Your task to perform on an android device: toggle pop-ups in chrome Image 0: 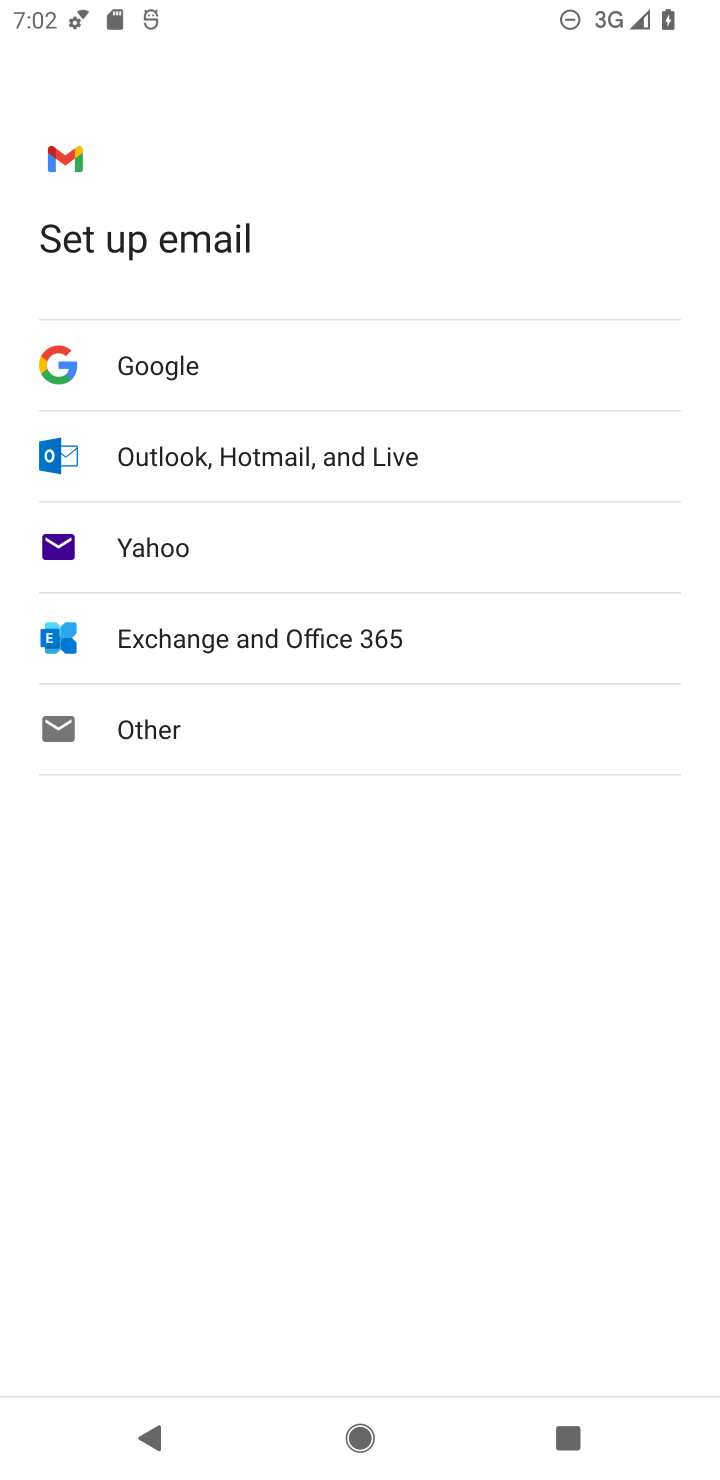
Step 0: press home button
Your task to perform on an android device: toggle pop-ups in chrome Image 1: 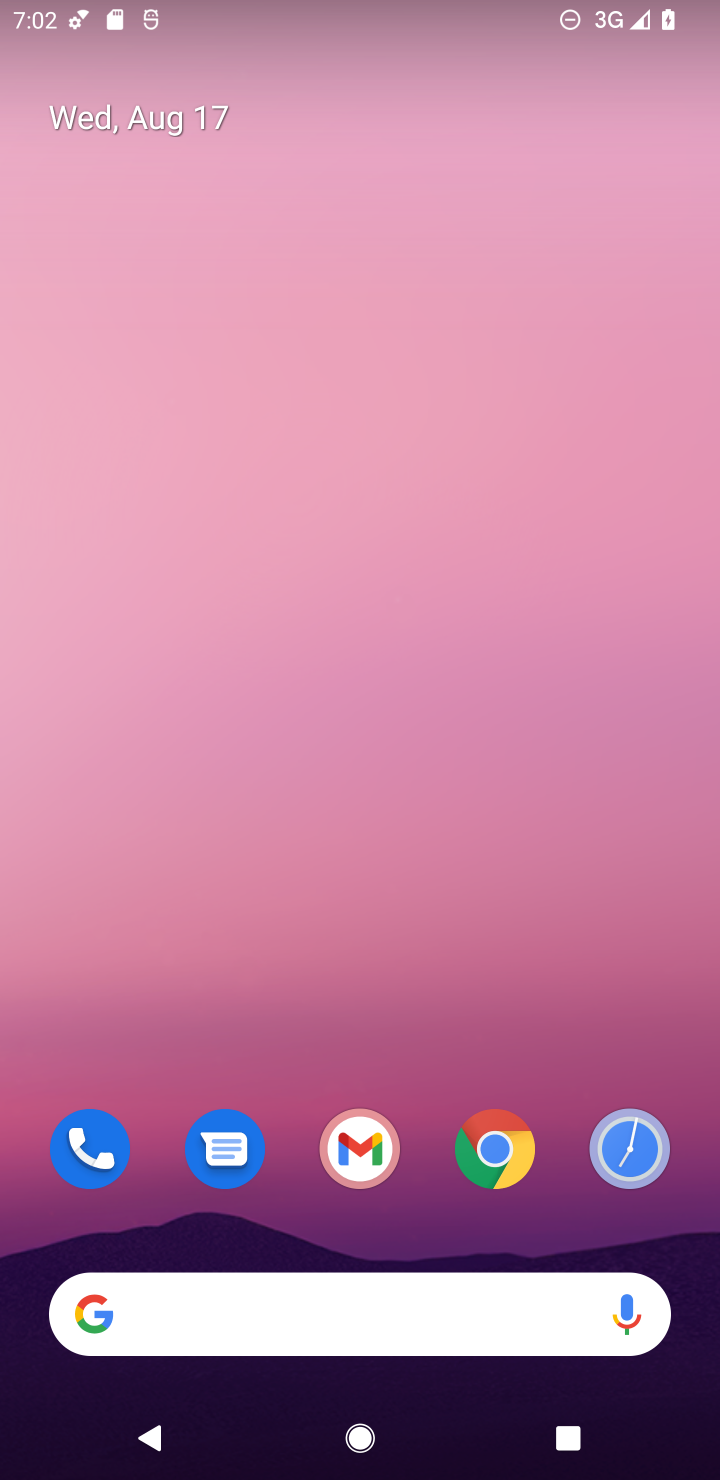
Step 1: click (491, 1138)
Your task to perform on an android device: toggle pop-ups in chrome Image 2: 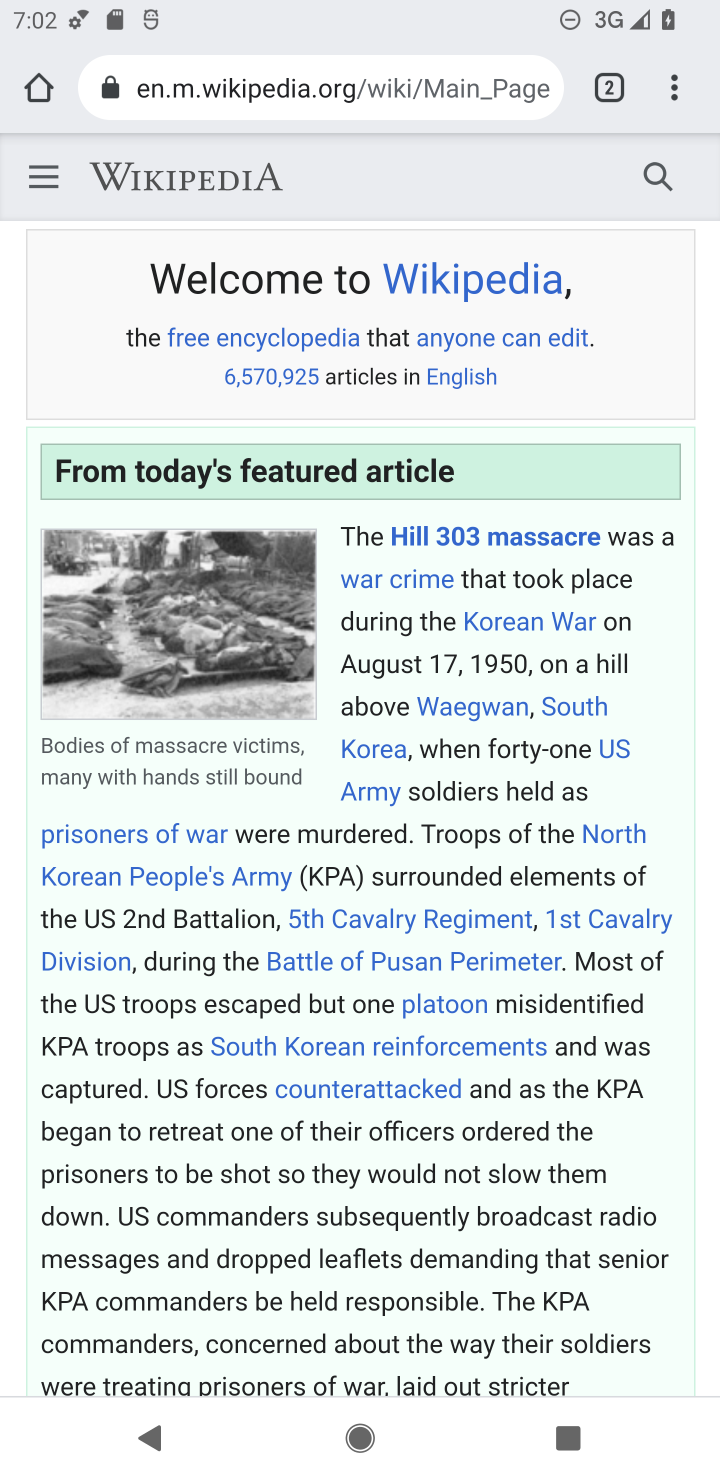
Step 2: click (663, 88)
Your task to perform on an android device: toggle pop-ups in chrome Image 3: 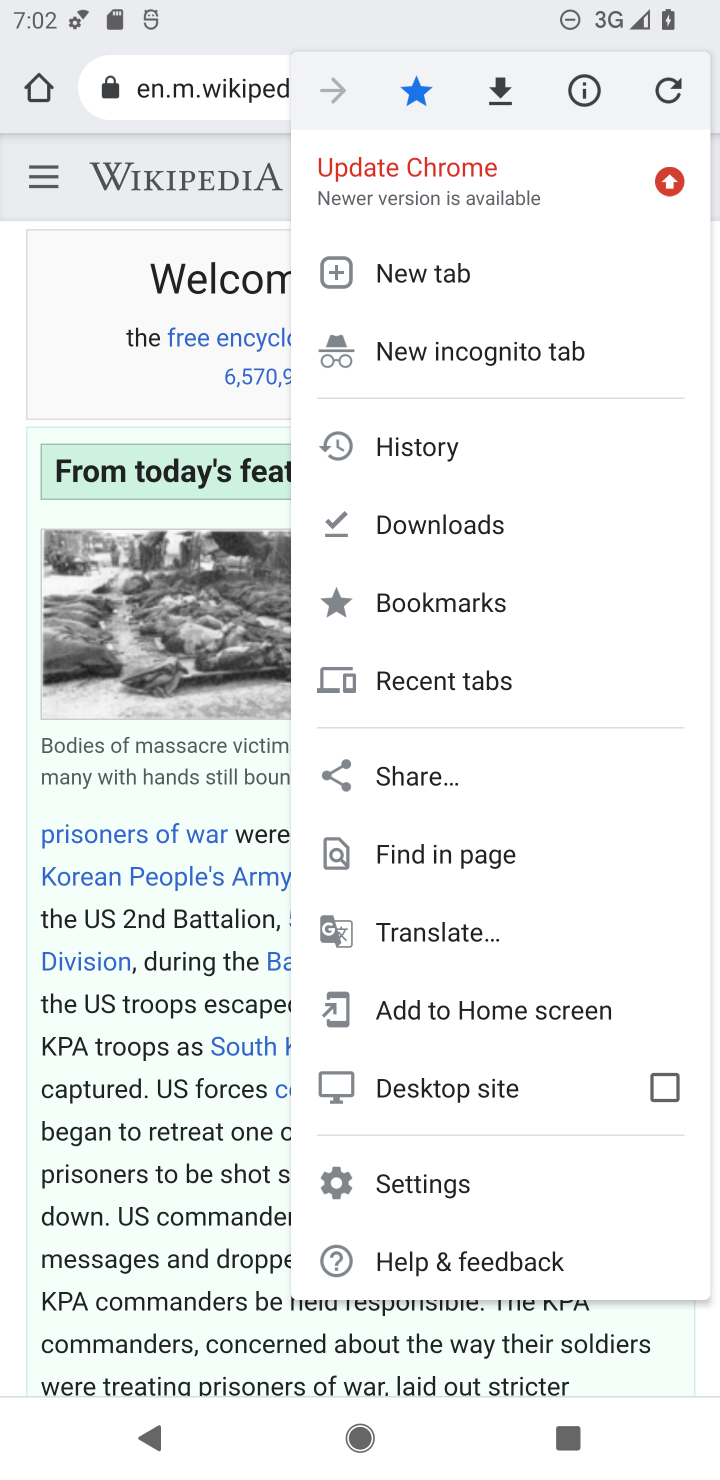
Step 3: click (449, 1181)
Your task to perform on an android device: toggle pop-ups in chrome Image 4: 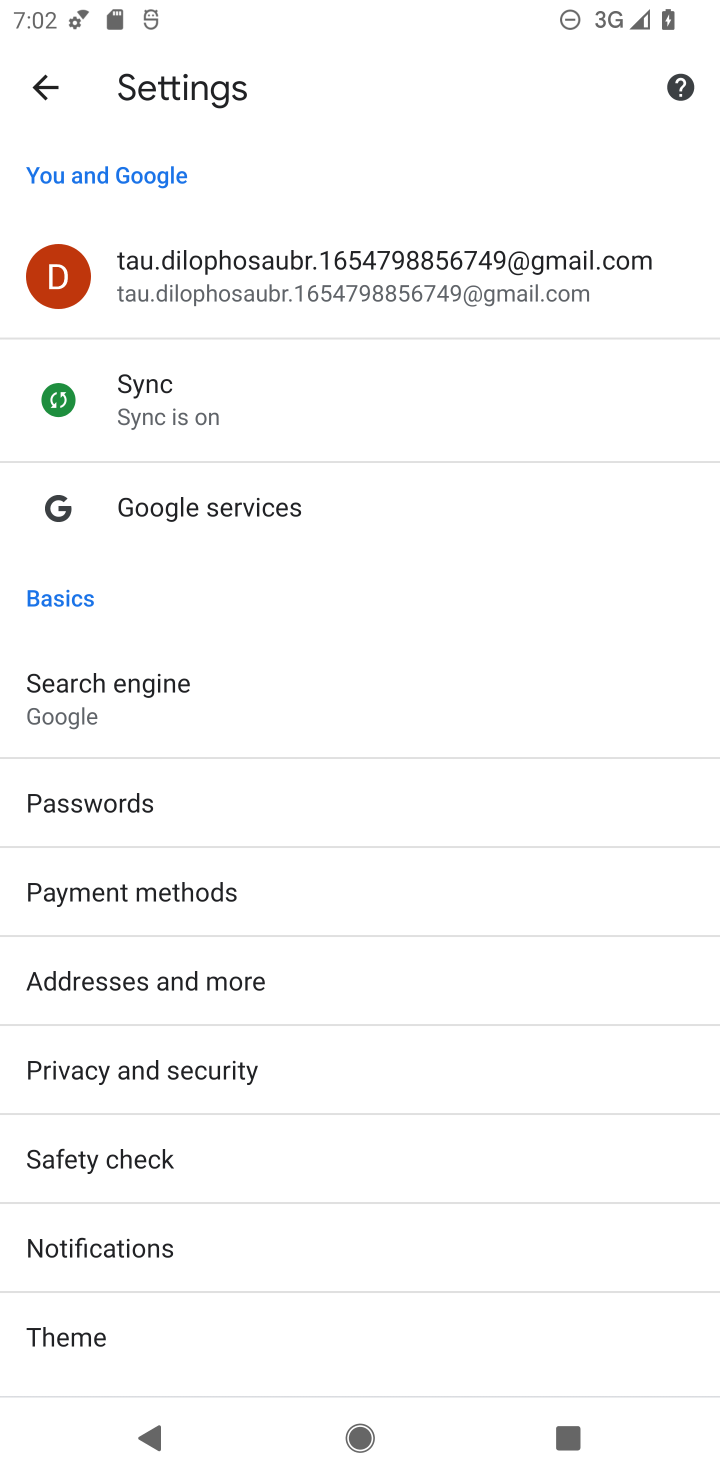
Step 4: drag from (264, 1250) to (205, 509)
Your task to perform on an android device: toggle pop-ups in chrome Image 5: 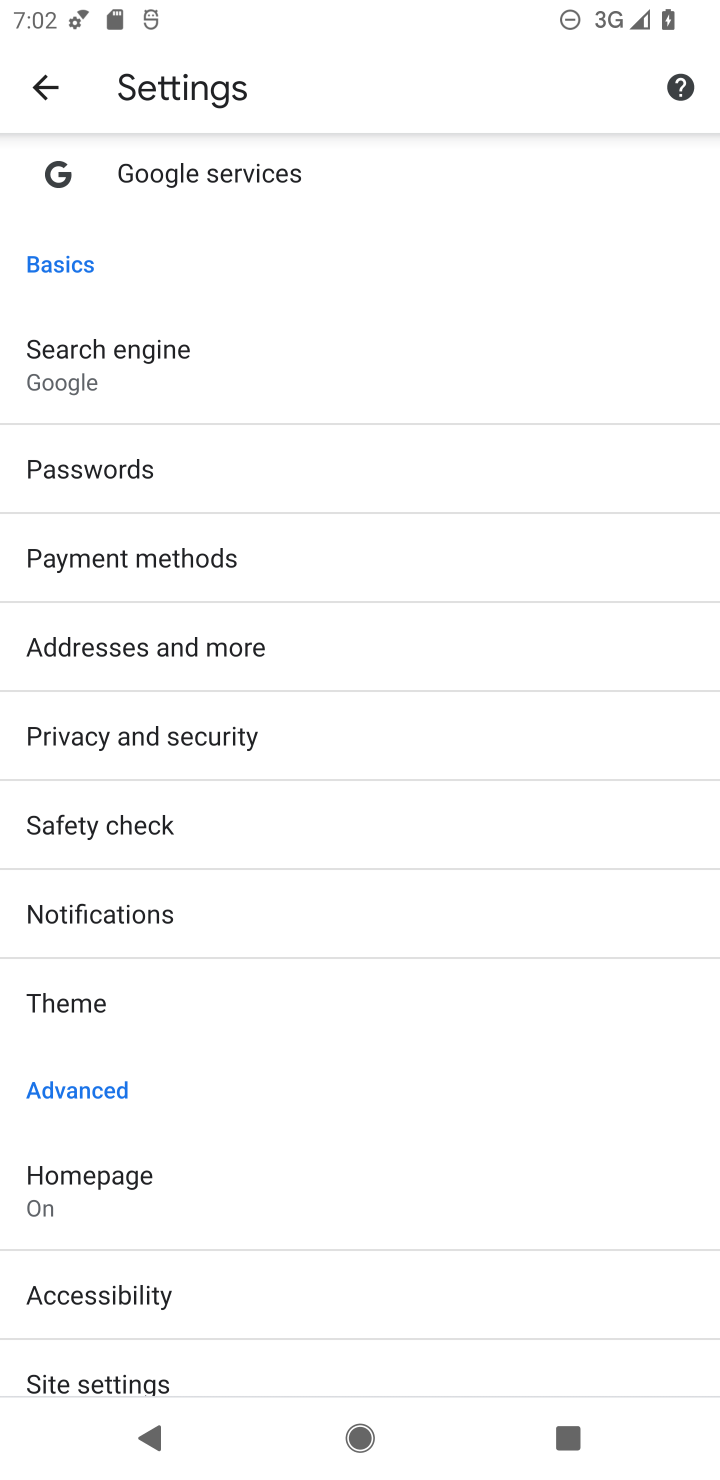
Step 5: click (86, 1362)
Your task to perform on an android device: toggle pop-ups in chrome Image 6: 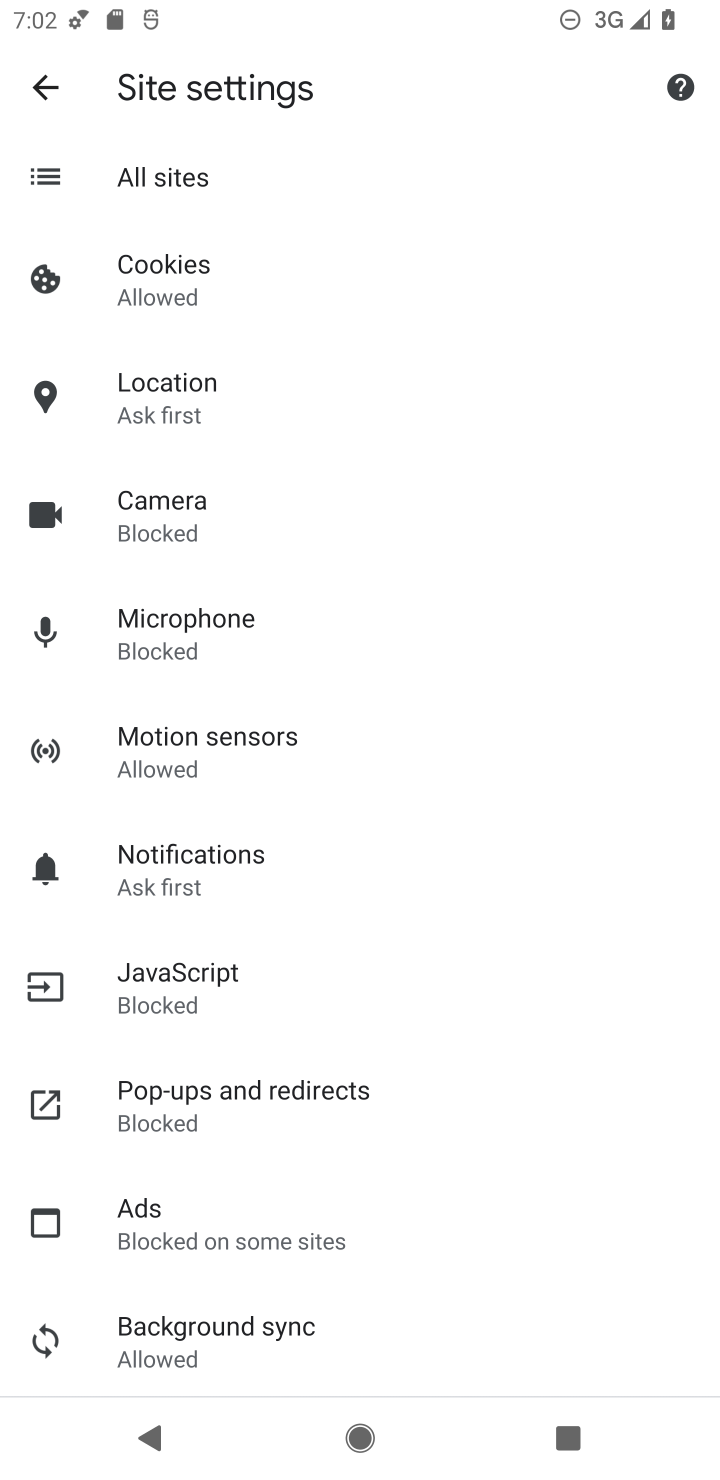
Step 6: click (161, 1084)
Your task to perform on an android device: toggle pop-ups in chrome Image 7: 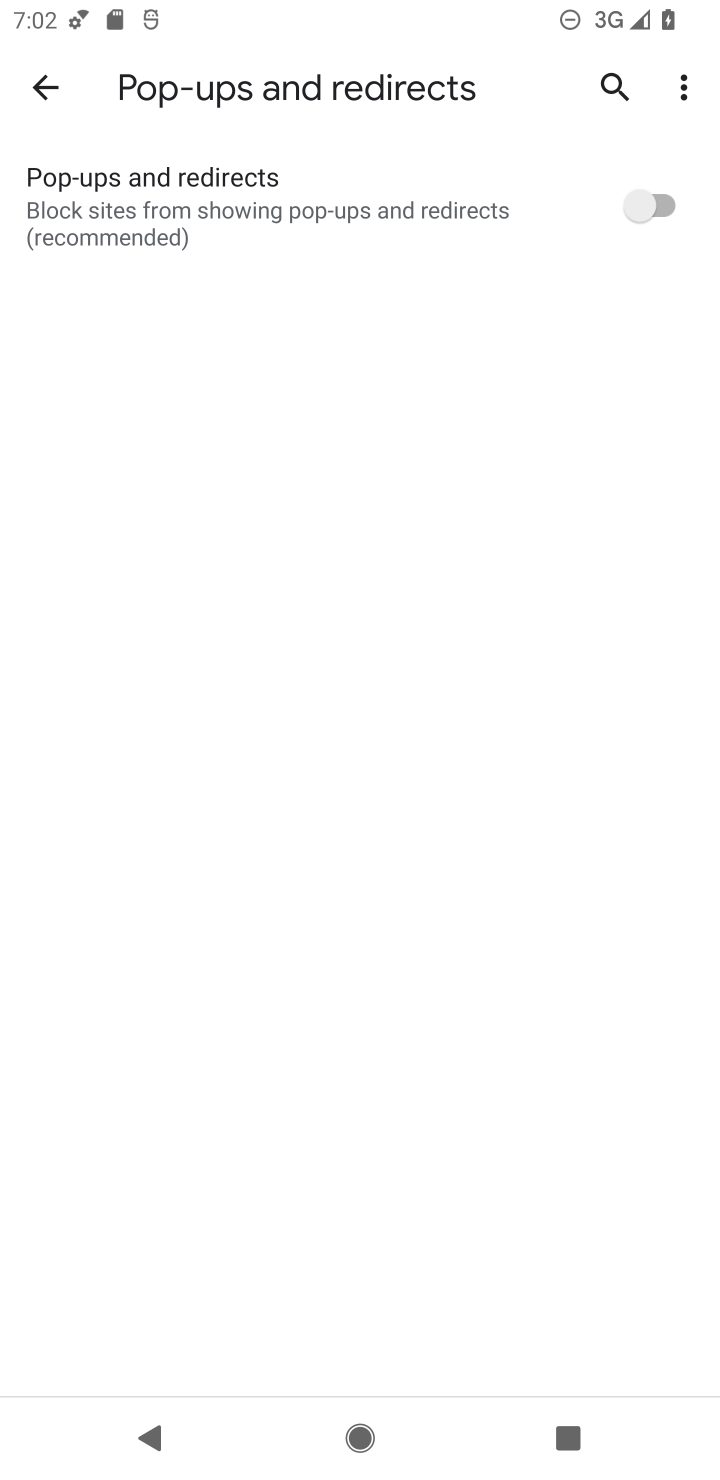
Step 7: click (633, 201)
Your task to perform on an android device: toggle pop-ups in chrome Image 8: 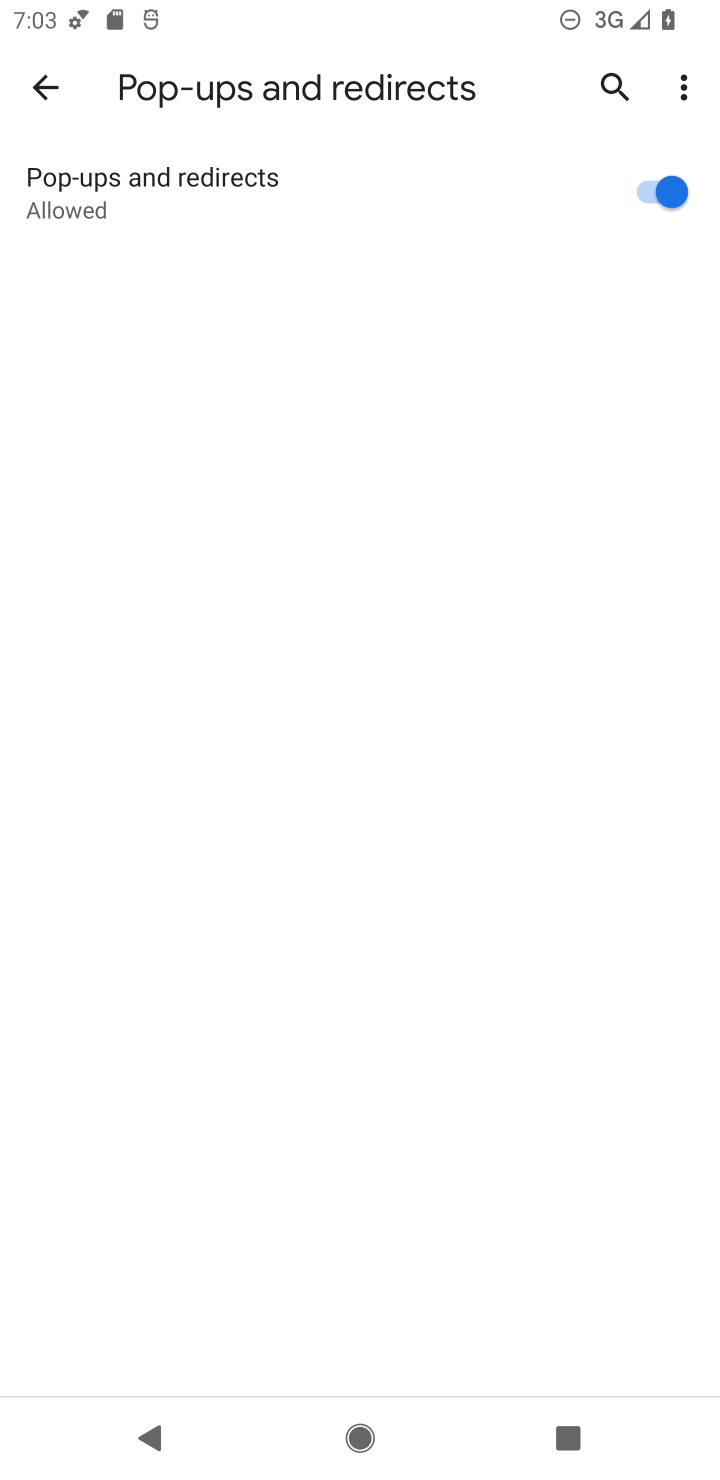
Step 8: task complete